Your task to perform on an android device: open wifi settings Image 0: 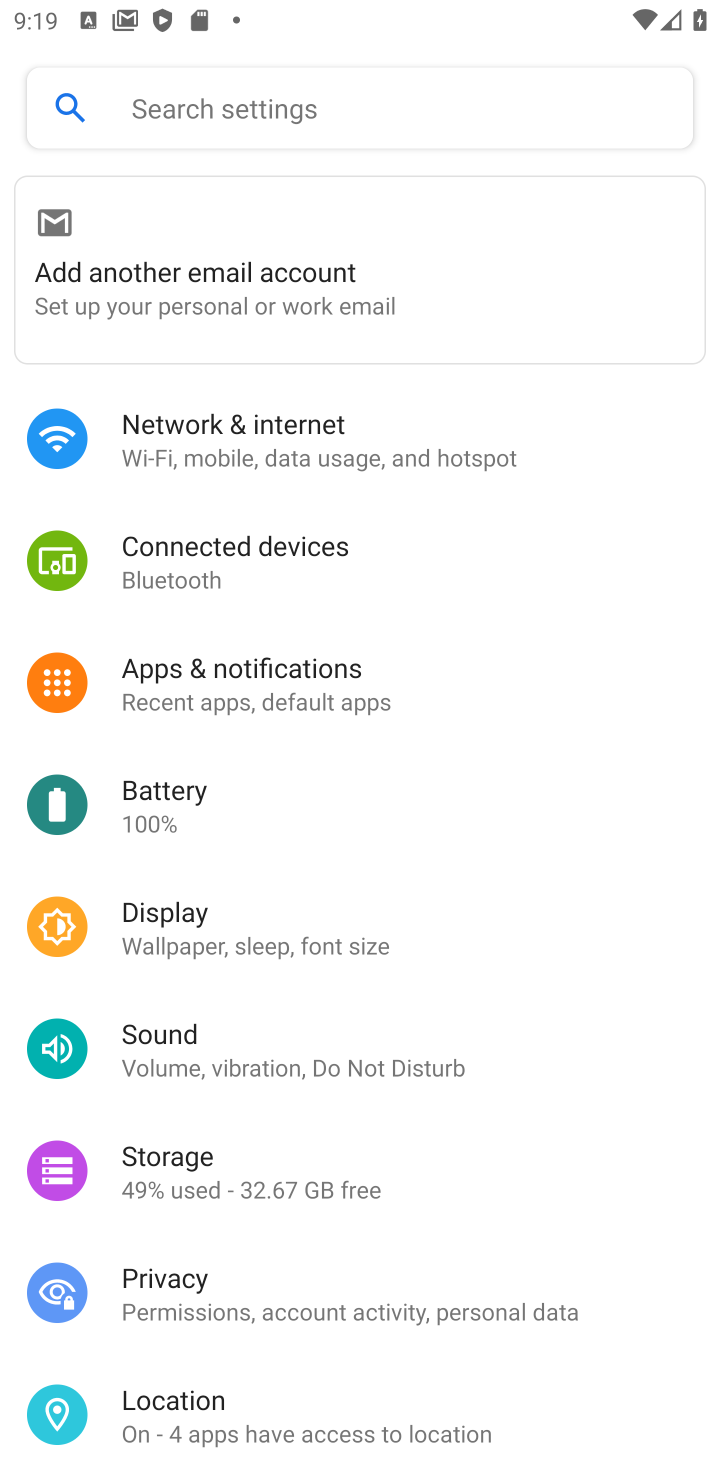
Step 0: click (414, 468)
Your task to perform on an android device: open wifi settings Image 1: 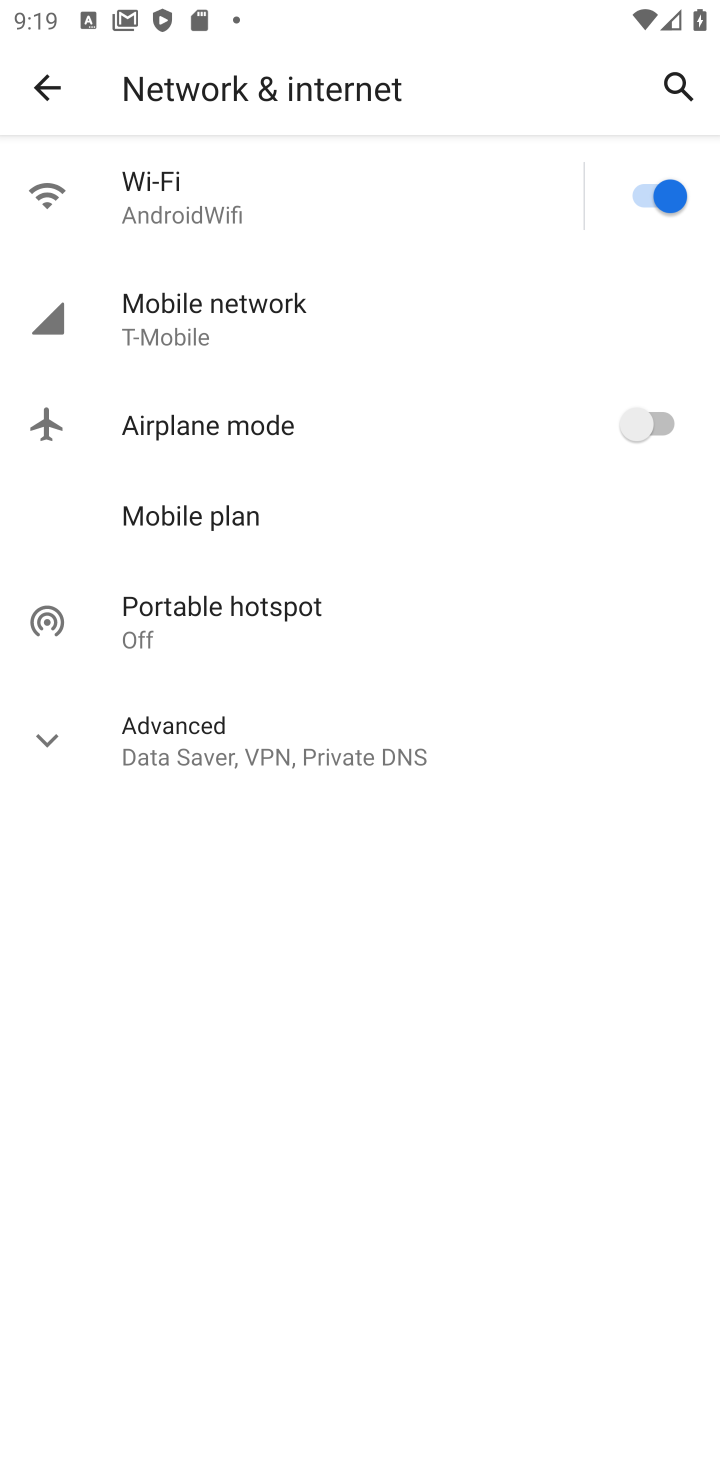
Step 1: click (439, 195)
Your task to perform on an android device: open wifi settings Image 2: 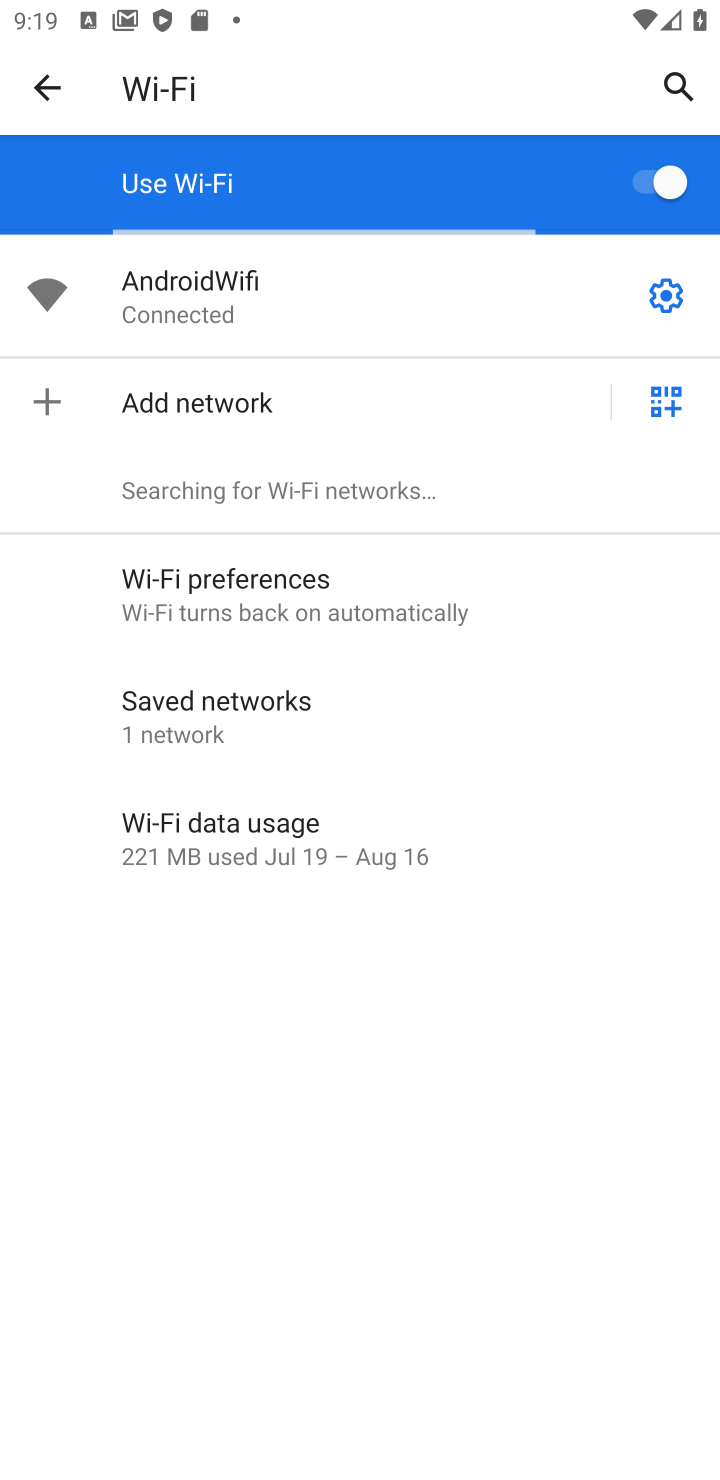
Step 2: task complete